Your task to perform on an android device: Go to Maps Image 0: 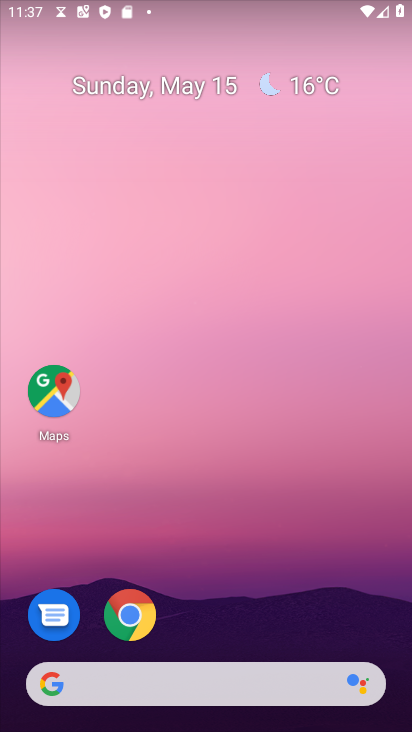
Step 0: drag from (185, 662) to (352, 10)
Your task to perform on an android device: Go to Maps Image 1: 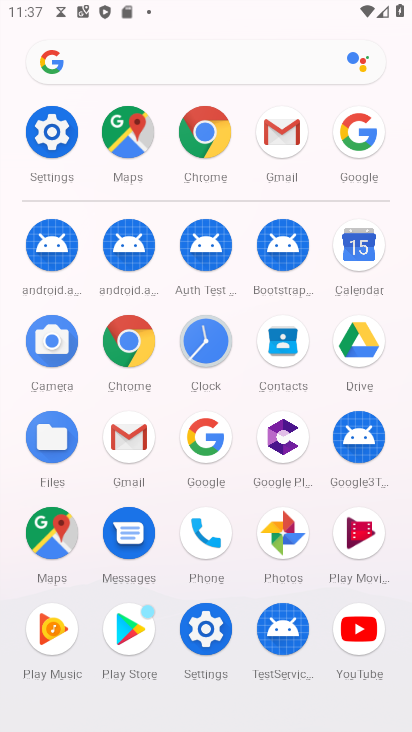
Step 1: click (57, 529)
Your task to perform on an android device: Go to Maps Image 2: 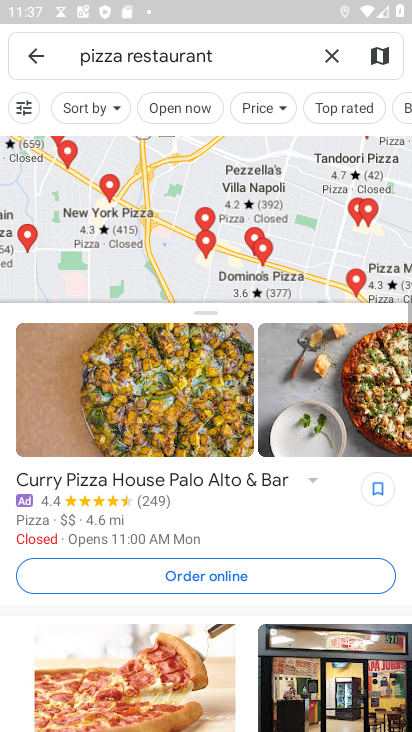
Step 2: task complete